Your task to perform on an android device: Play the new Justin Bieber video on YouTube Image 0: 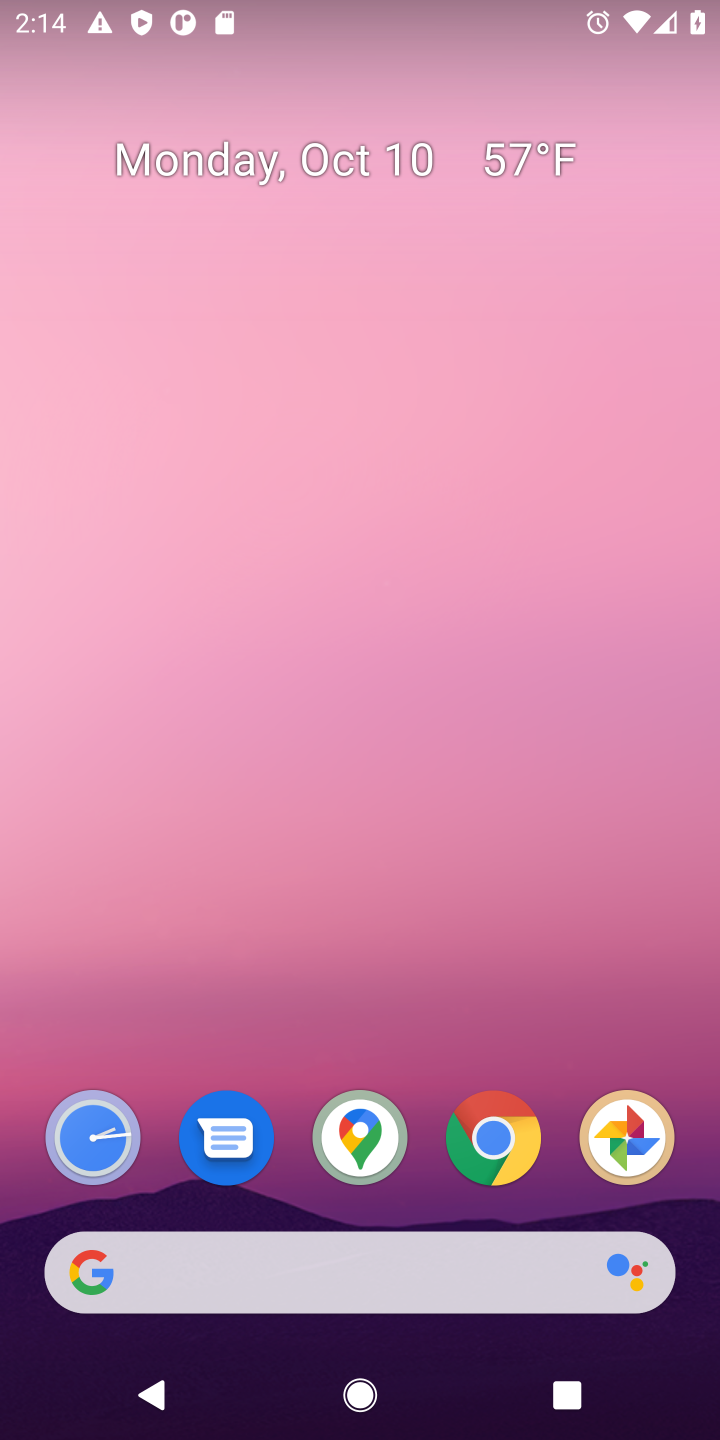
Step 0: drag from (389, 736) to (381, 530)
Your task to perform on an android device: Play the new Justin Bieber video on YouTube Image 1: 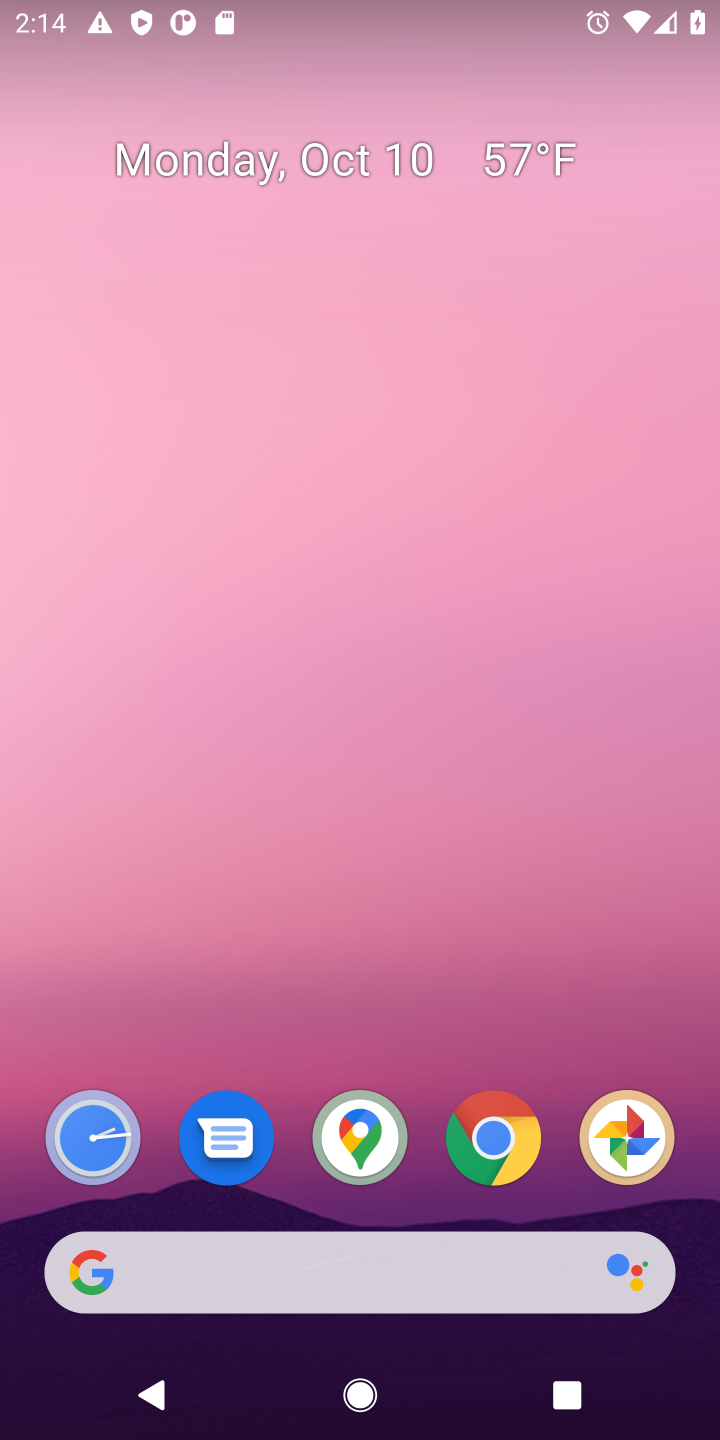
Step 1: drag from (427, 1159) to (348, 554)
Your task to perform on an android device: Play the new Justin Bieber video on YouTube Image 2: 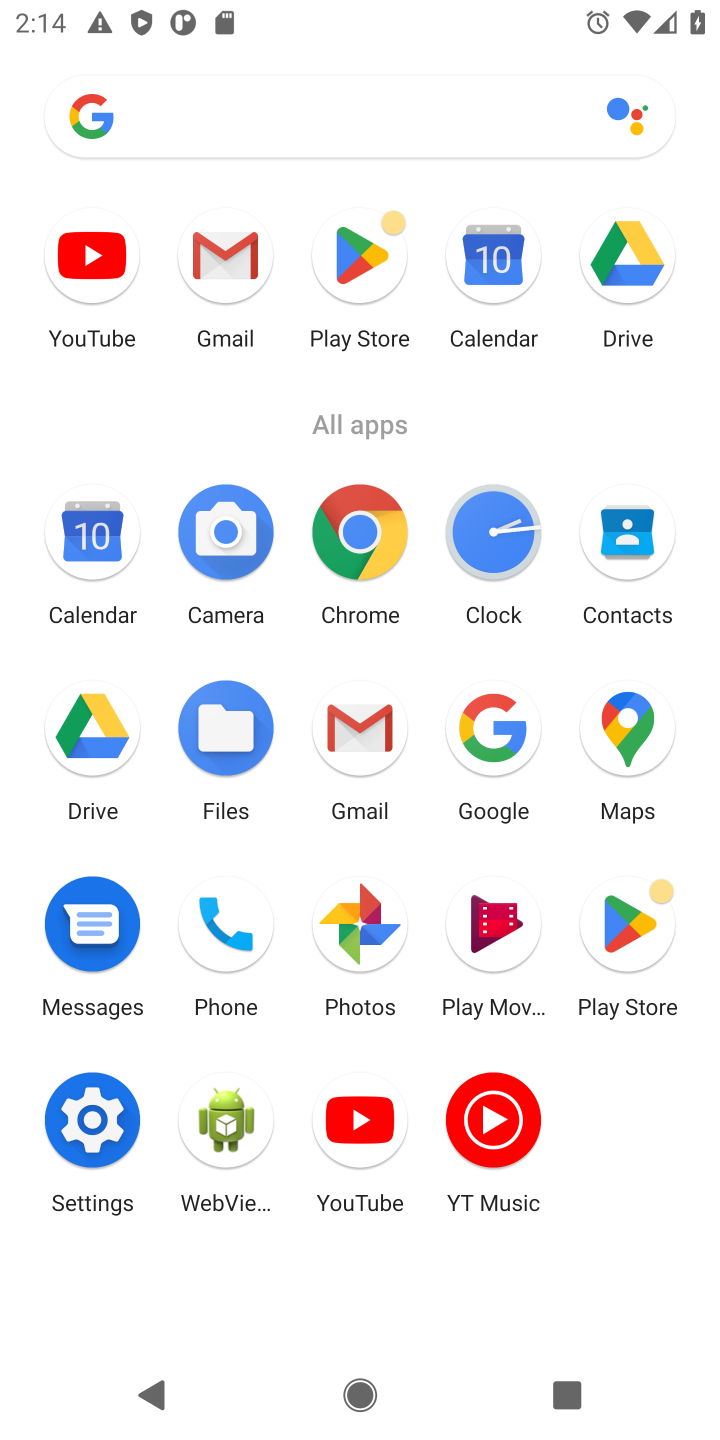
Step 2: click (90, 261)
Your task to perform on an android device: Play the new Justin Bieber video on YouTube Image 3: 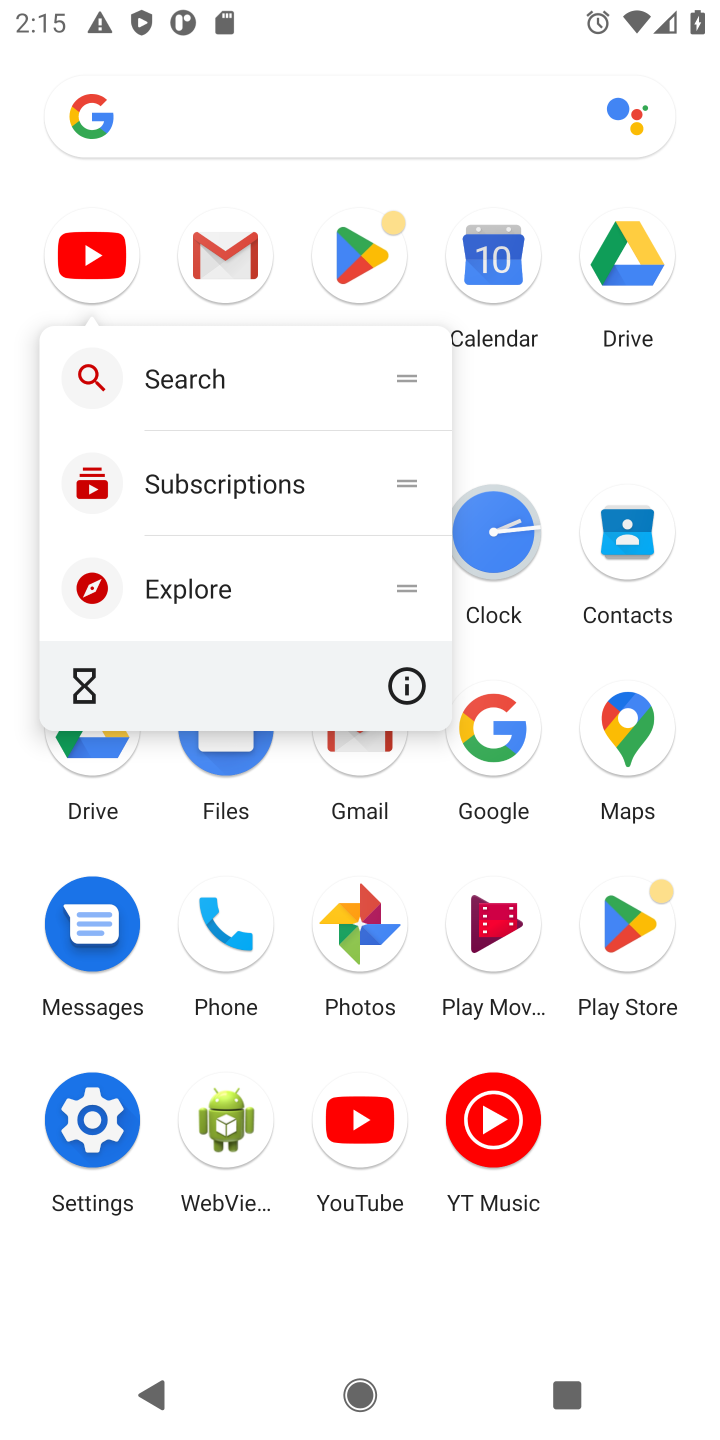
Step 3: click (86, 263)
Your task to perform on an android device: Play the new Justin Bieber video on YouTube Image 4: 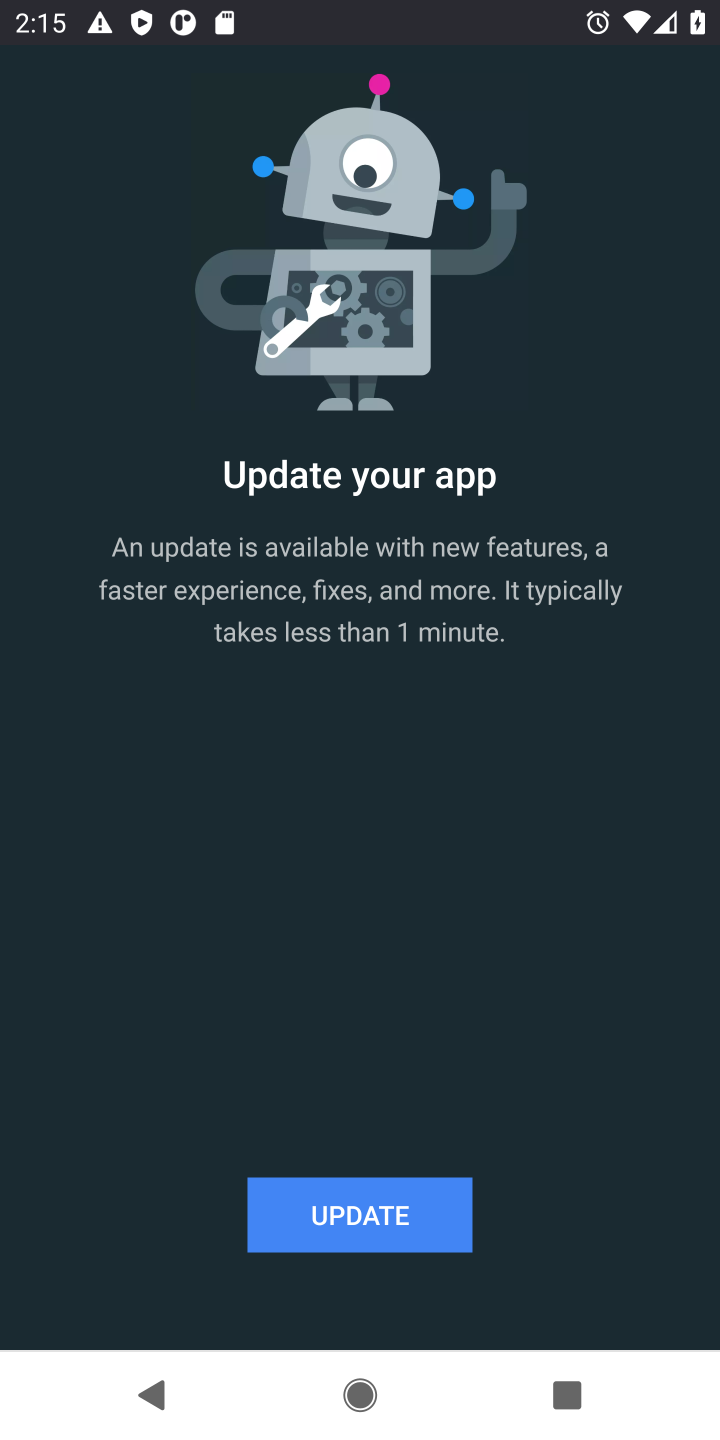
Step 4: click (338, 1231)
Your task to perform on an android device: Play the new Justin Bieber video on YouTube Image 5: 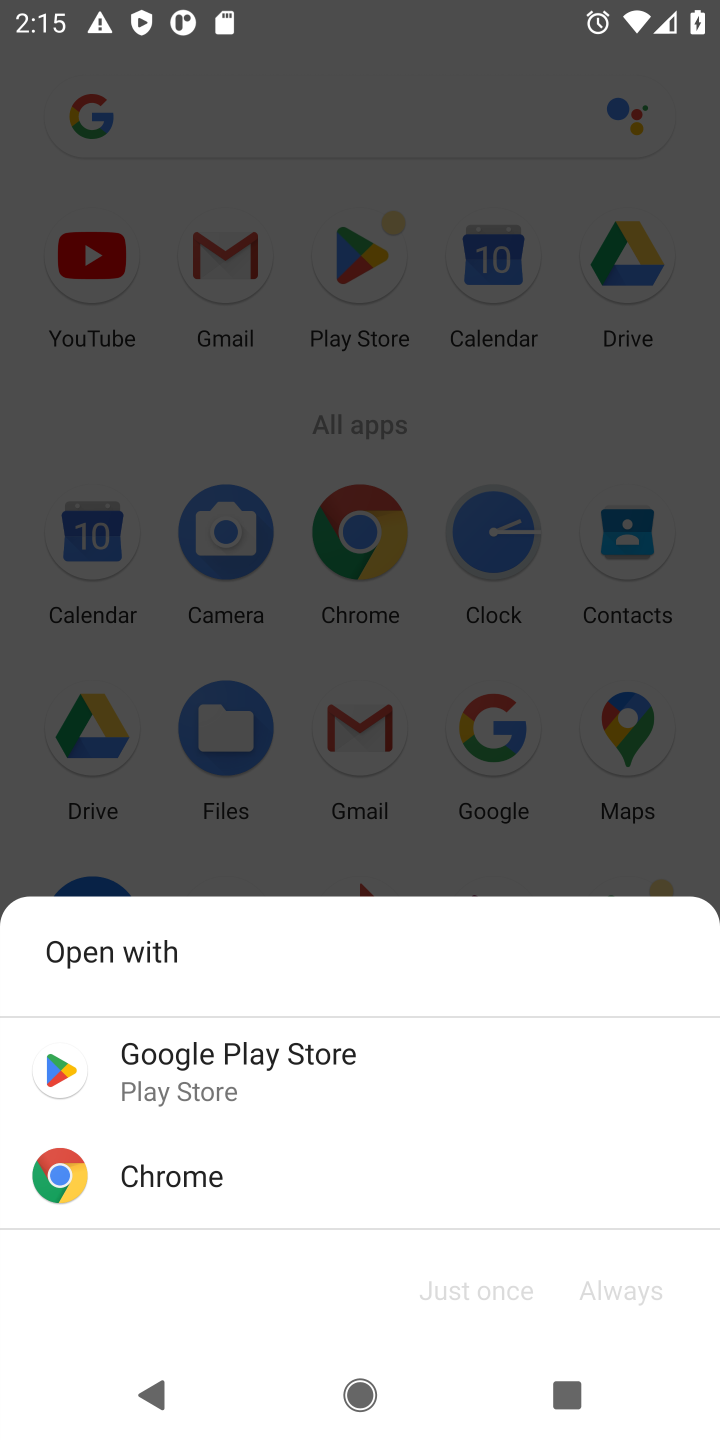
Step 5: click (191, 1074)
Your task to perform on an android device: Play the new Justin Bieber video on YouTube Image 6: 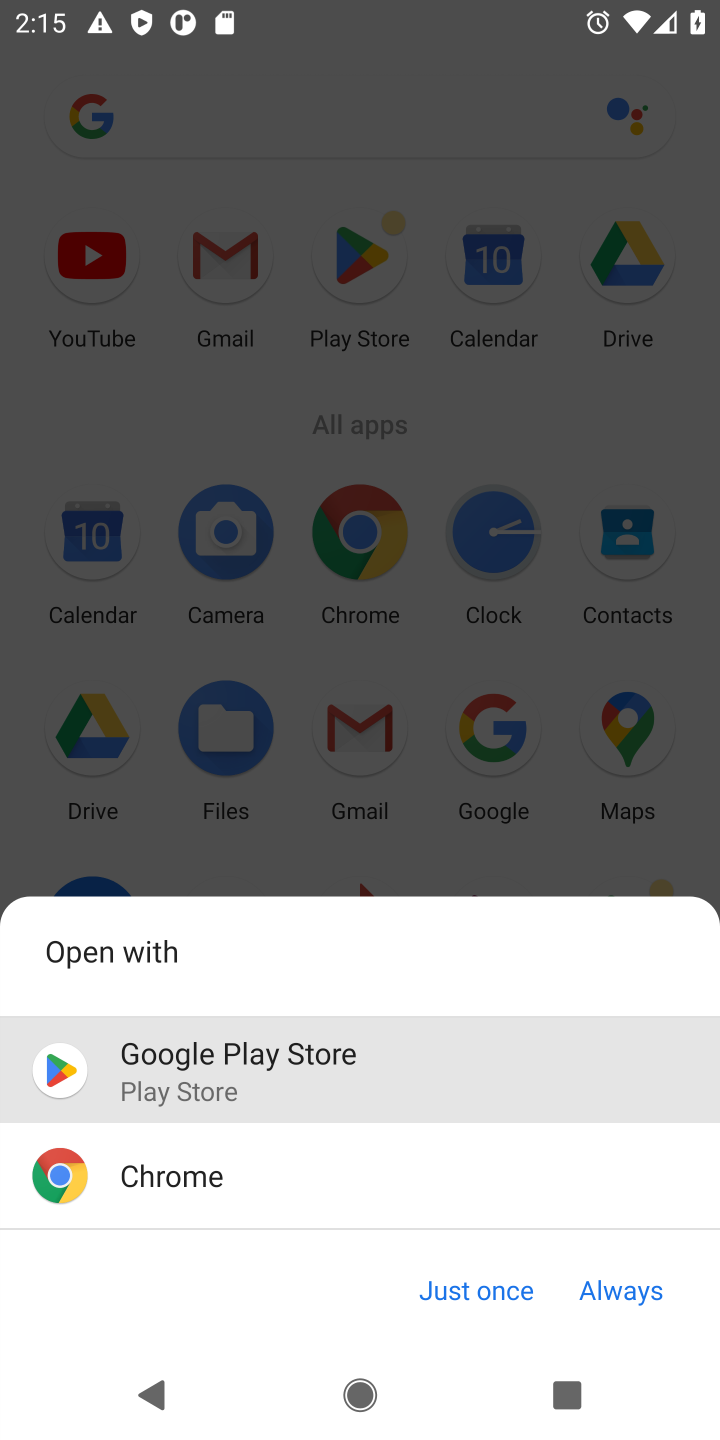
Step 6: click (633, 1286)
Your task to perform on an android device: Play the new Justin Bieber video on YouTube Image 7: 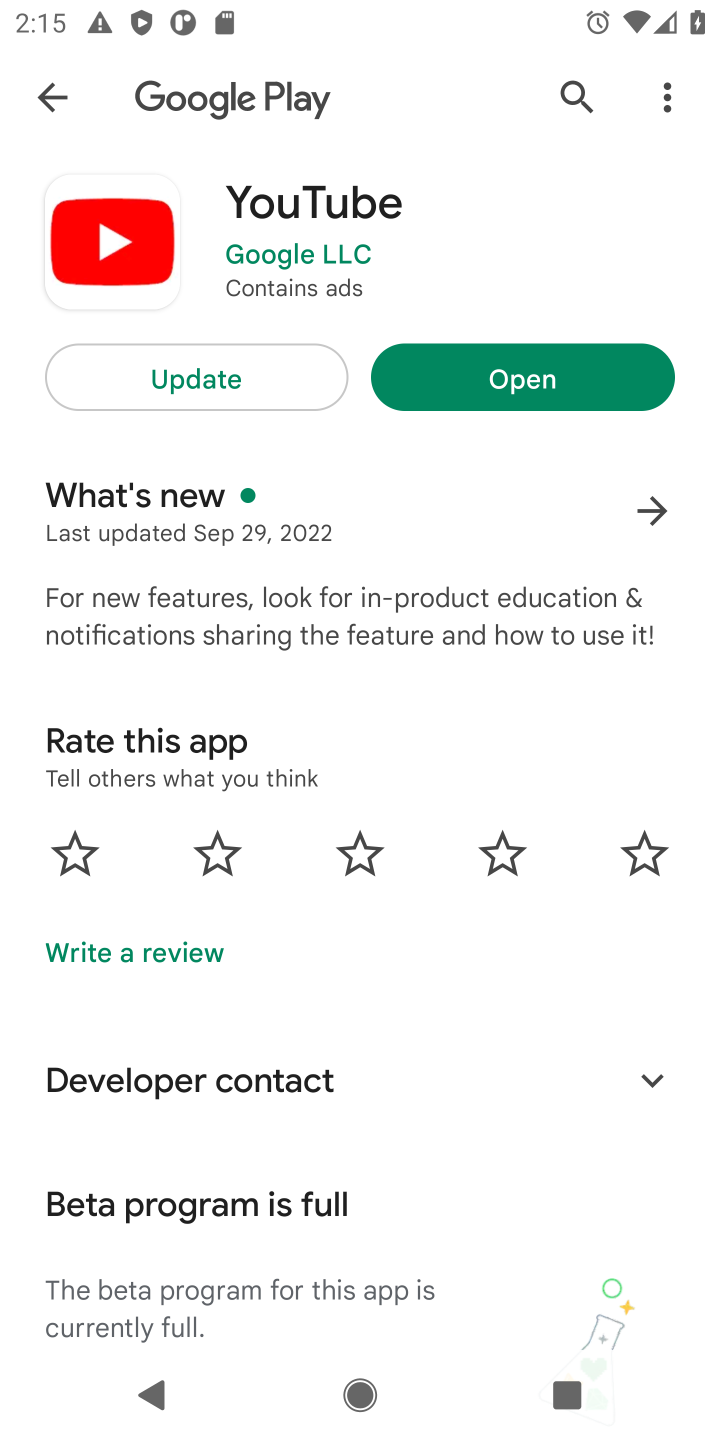
Step 7: click (164, 381)
Your task to perform on an android device: Play the new Justin Bieber video on YouTube Image 8: 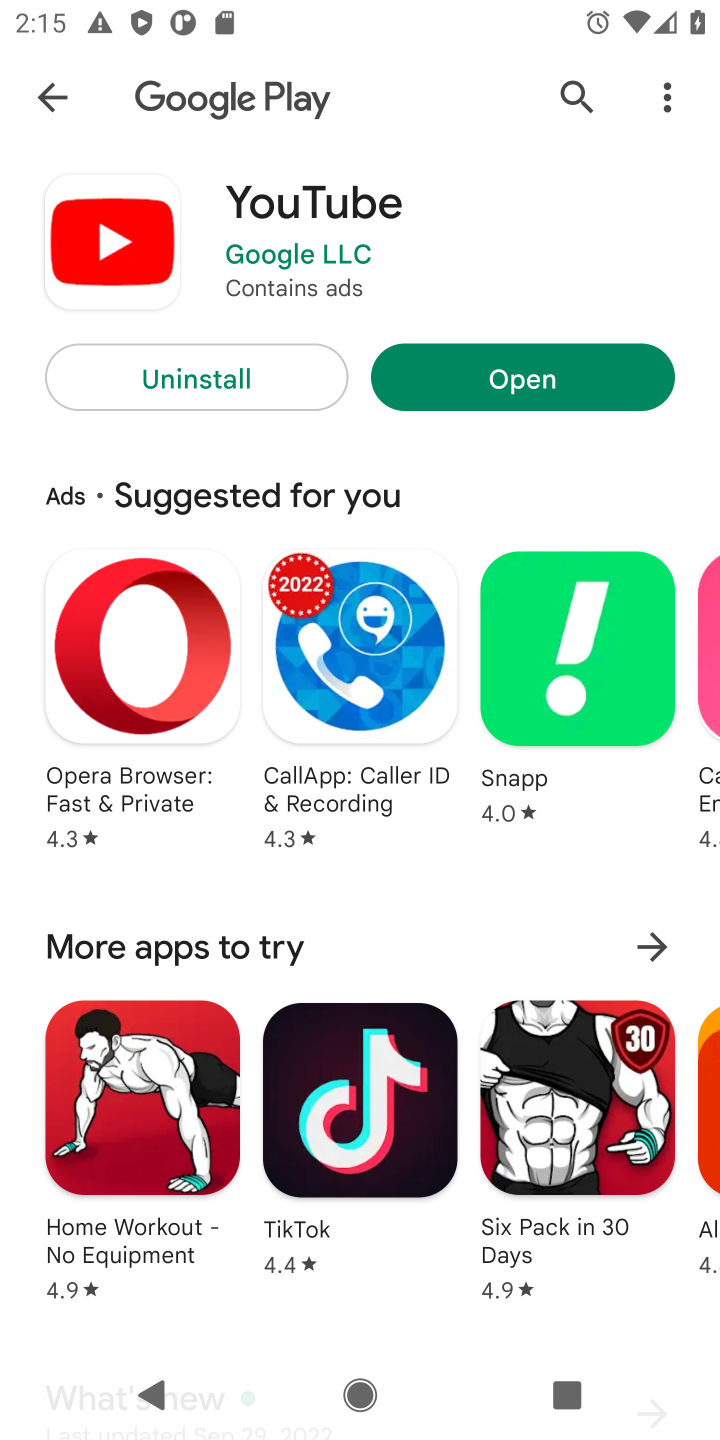
Step 8: click (547, 387)
Your task to perform on an android device: Play the new Justin Bieber video on YouTube Image 9: 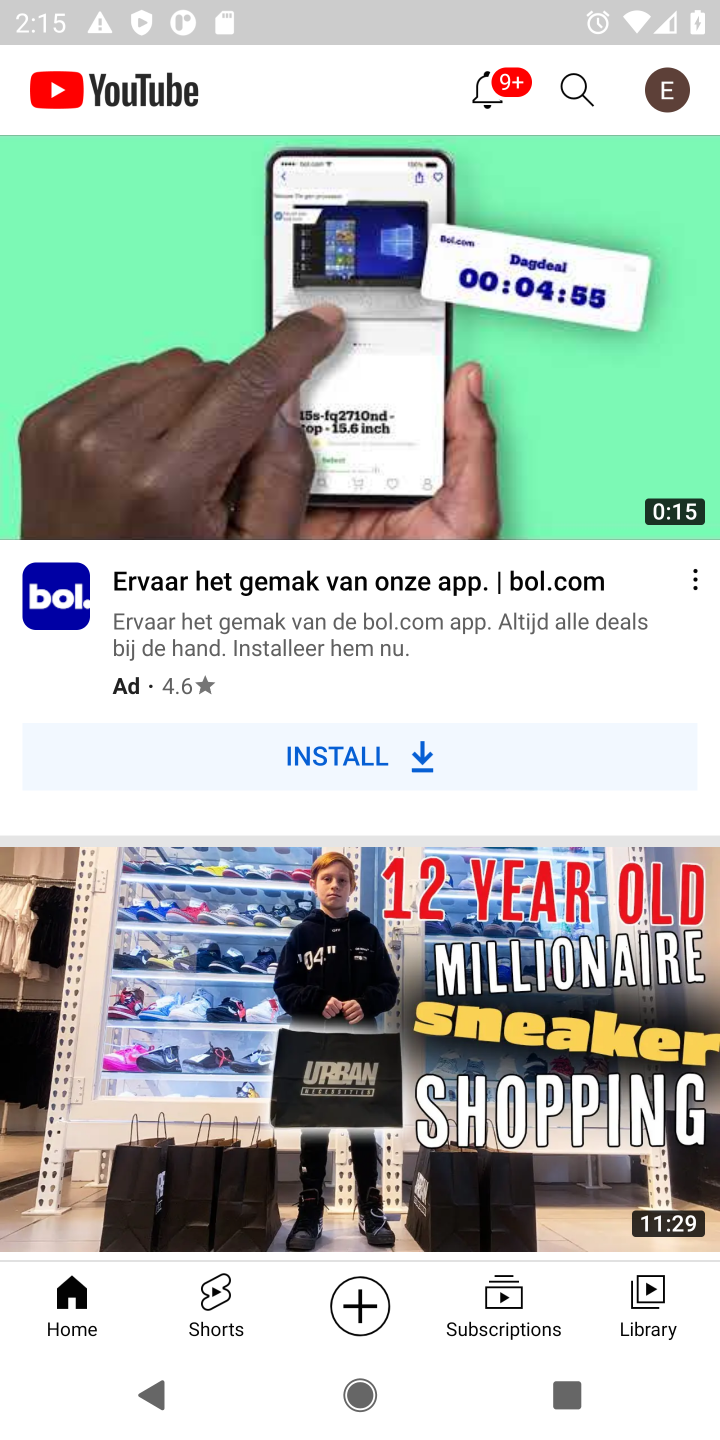
Step 9: click (568, 84)
Your task to perform on an android device: Play the new Justin Bieber video on YouTube Image 10: 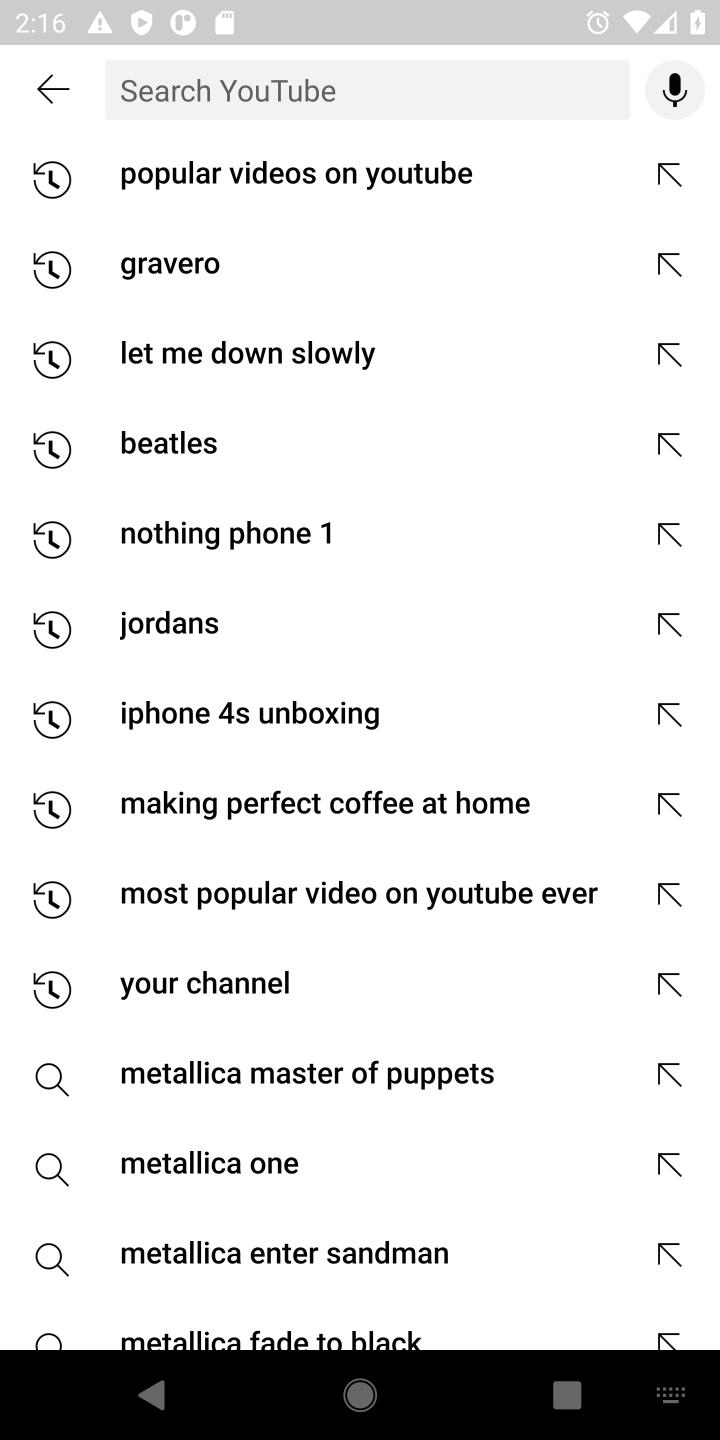
Step 10: type "new justin bieber video"
Your task to perform on an android device: Play the new Justin Bieber video on YouTube Image 11: 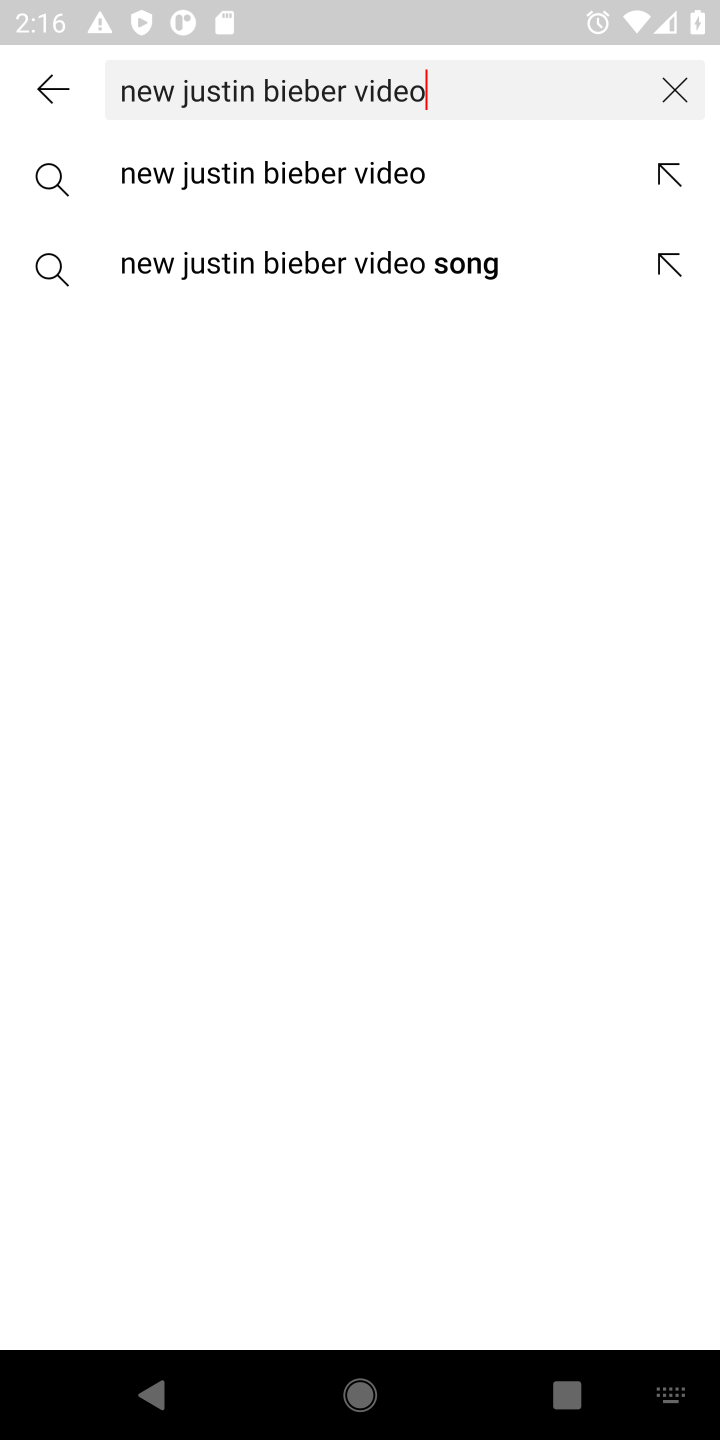
Step 11: click (283, 173)
Your task to perform on an android device: Play the new Justin Bieber video on YouTube Image 12: 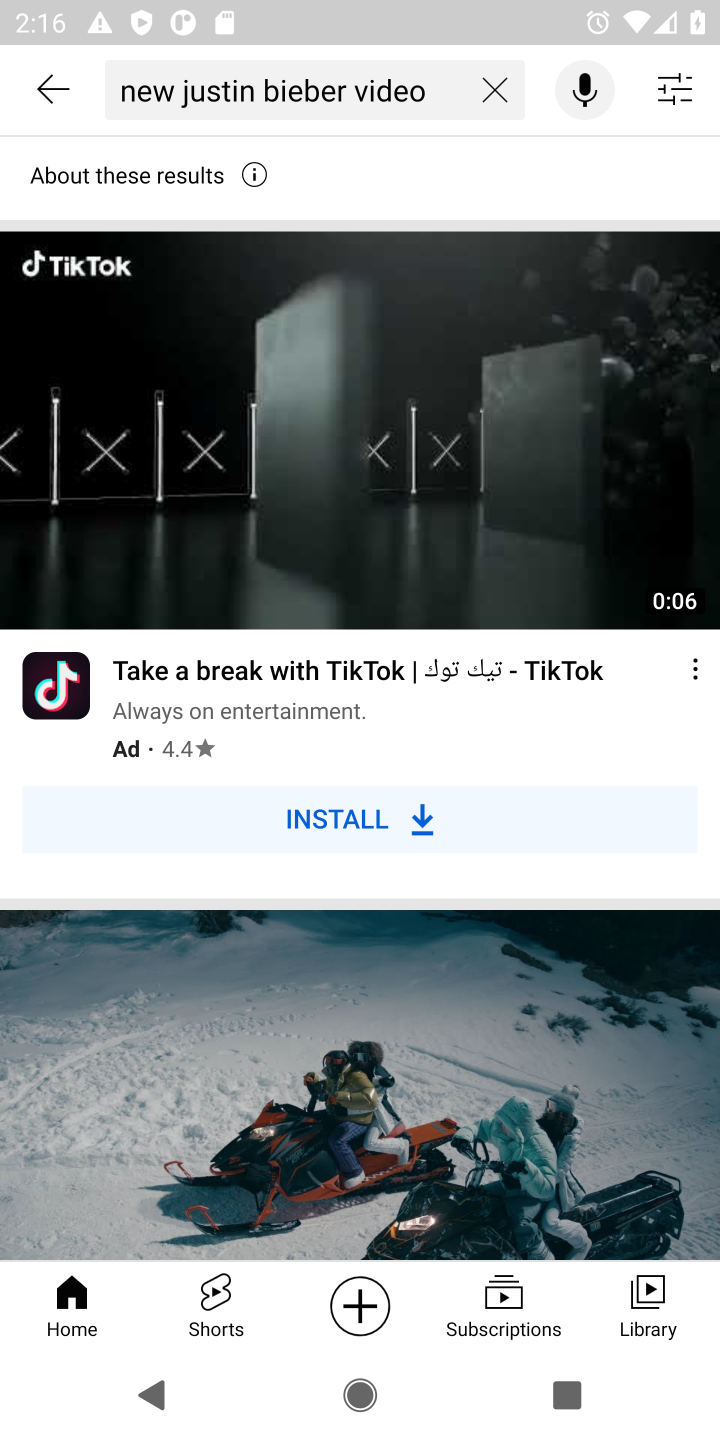
Step 12: drag from (437, 1149) to (540, 60)
Your task to perform on an android device: Play the new Justin Bieber video on YouTube Image 13: 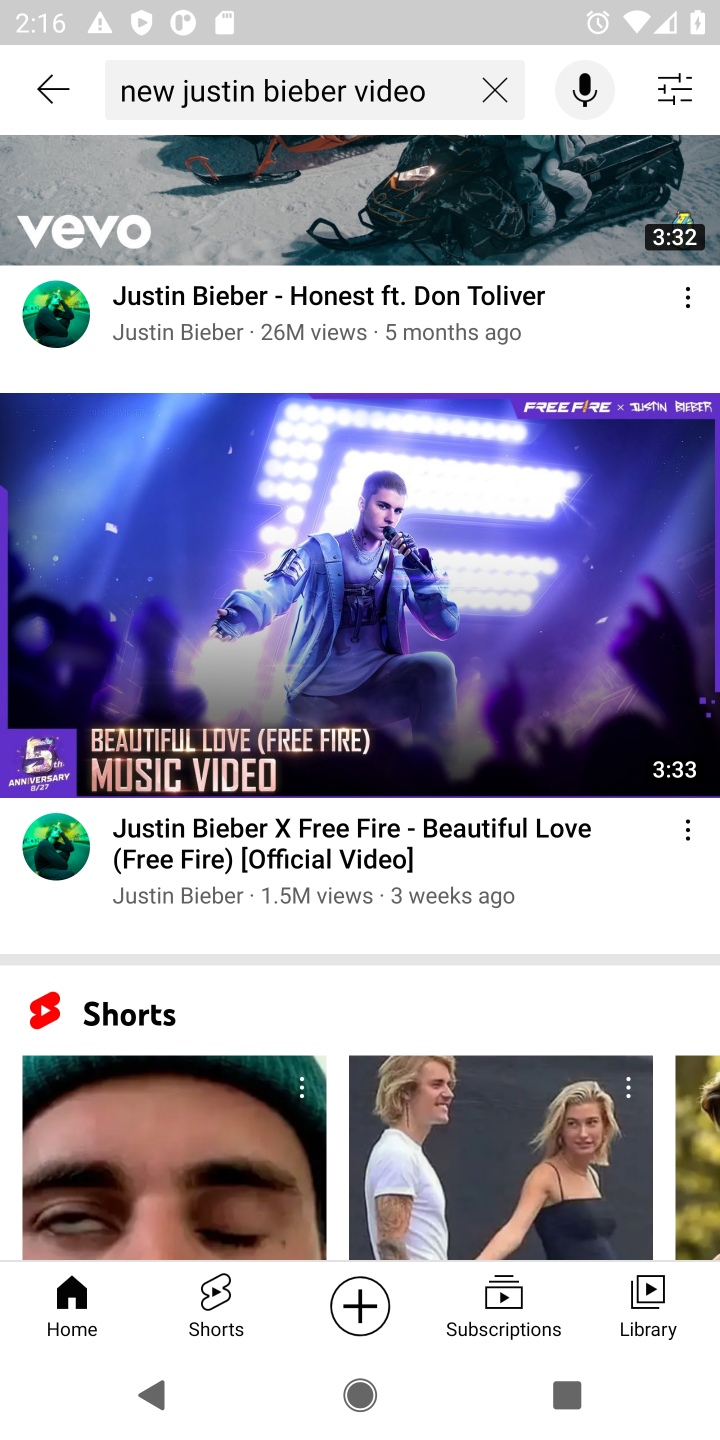
Step 13: click (468, 615)
Your task to perform on an android device: Play the new Justin Bieber video on YouTube Image 14: 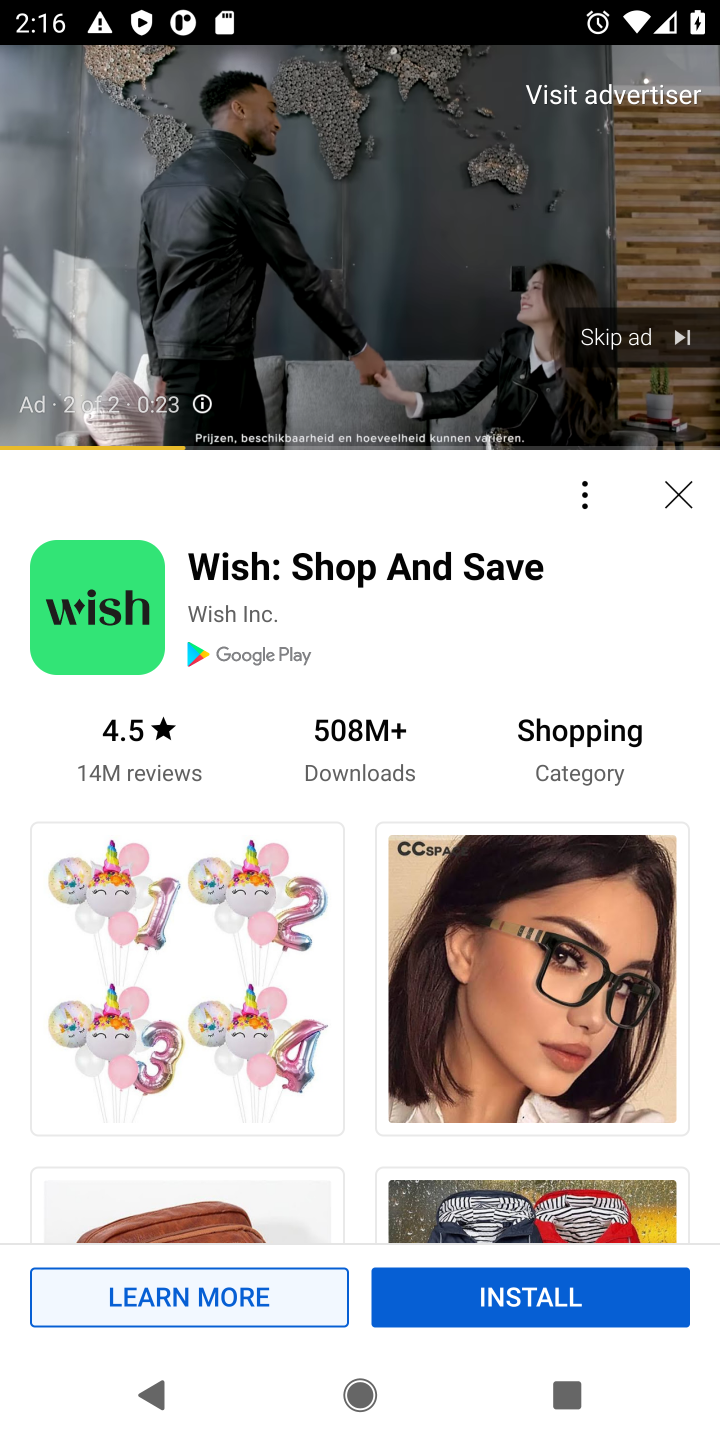
Step 14: click (638, 334)
Your task to perform on an android device: Play the new Justin Bieber video on YouTube Image 15: 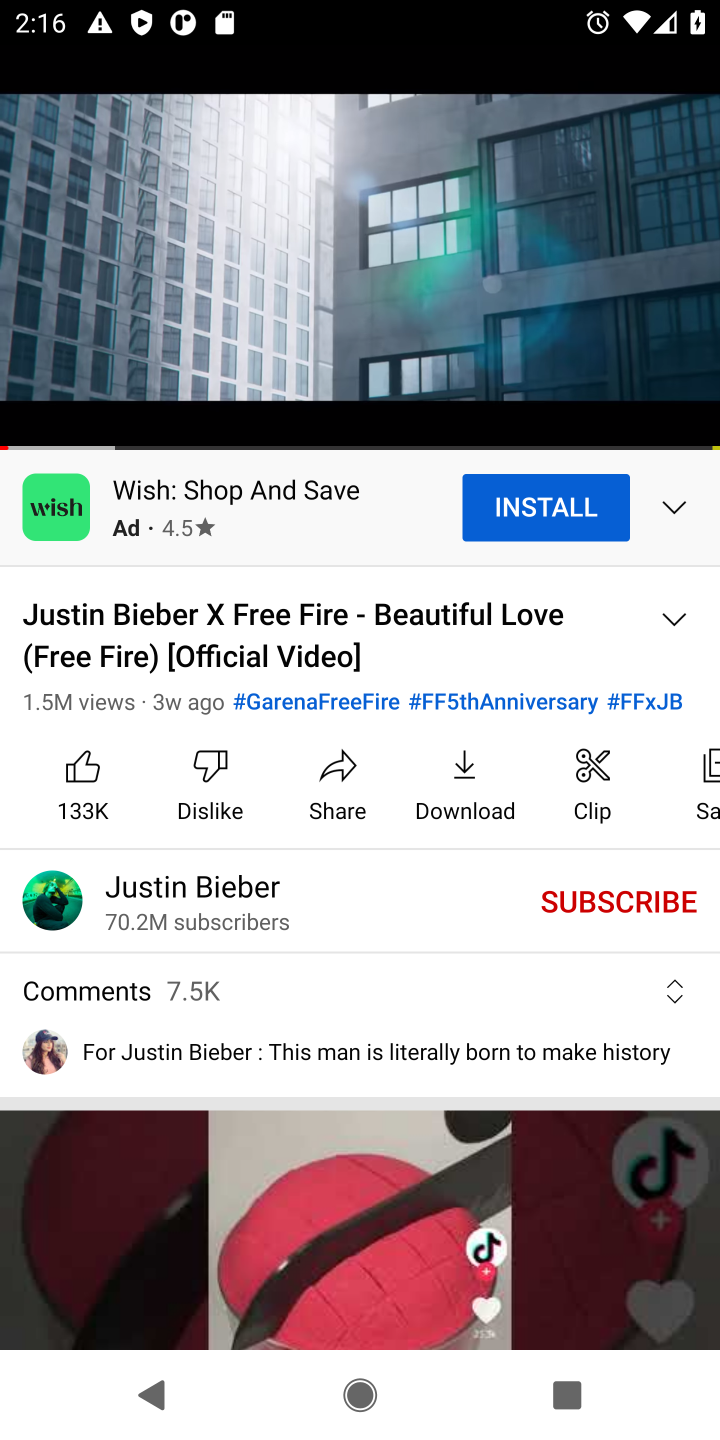
Step 15: click (618, 339)
Your task to perform on an android device: Play the new Justin Bieber video on YouTube Image 16: 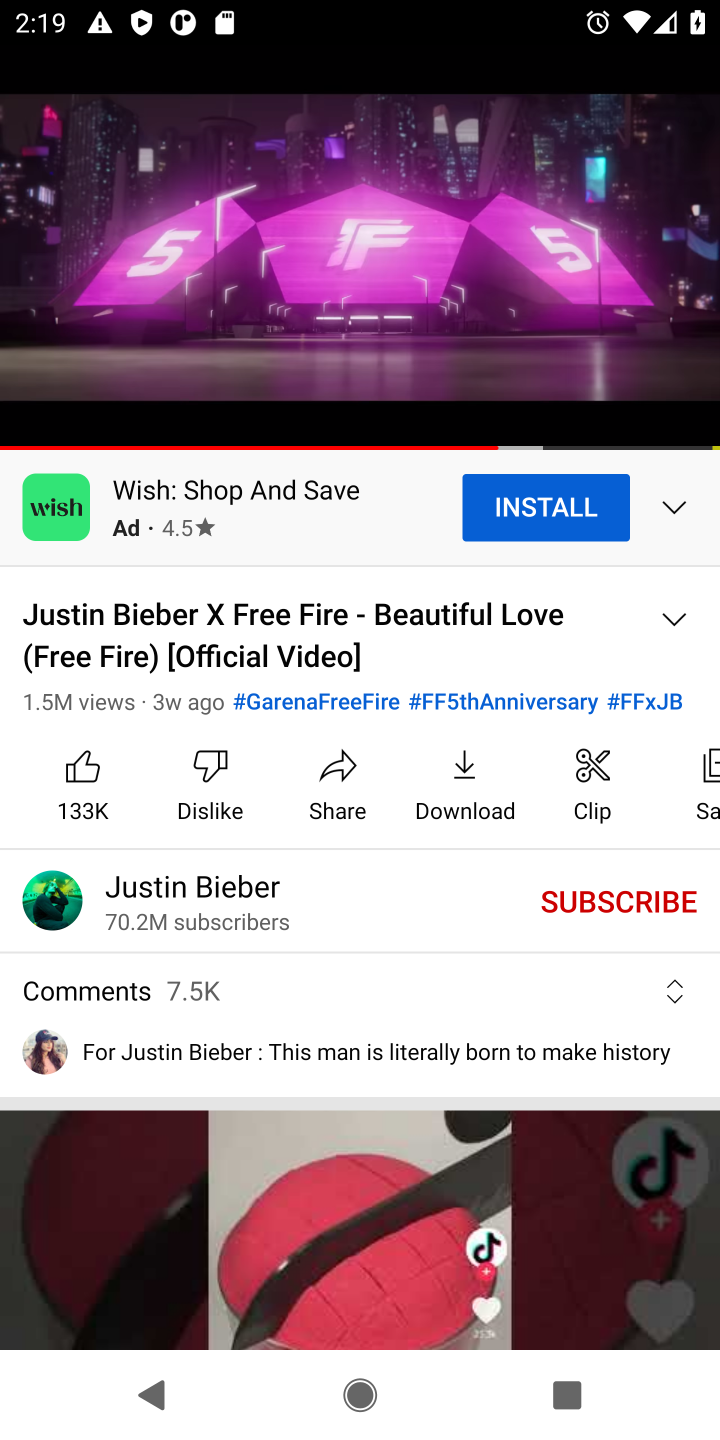
Step 16: task complete